Your task to perform on an android device: Open calendar and show me the second week of next month Image 0: 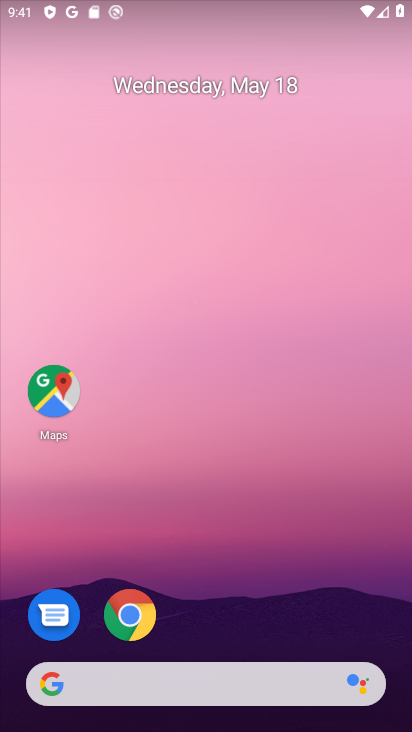
Step 0: drag from (279, 623) to (283, 181)
Your task to perform on an android device: Open calendar and show me the second week of next month Image 1: 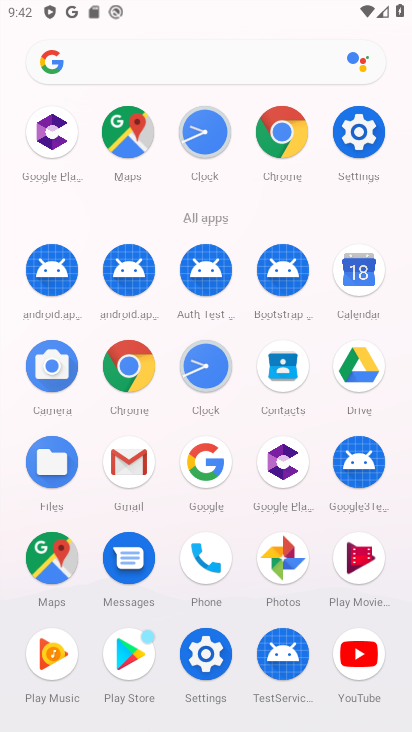
Step 1: click (367, 262)
Your task to perform on an android device: Open calendar and show me the second week of next month Image 2: 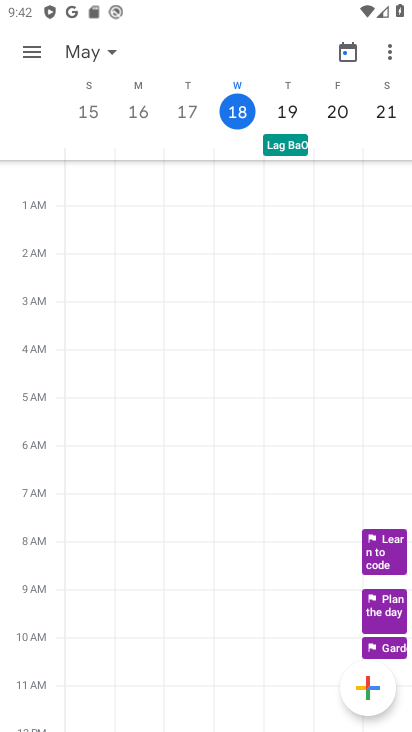
Step 2: click (40, 46)
Your task to perform on an android device: Open calendar and show me the second week of next month Image 3: 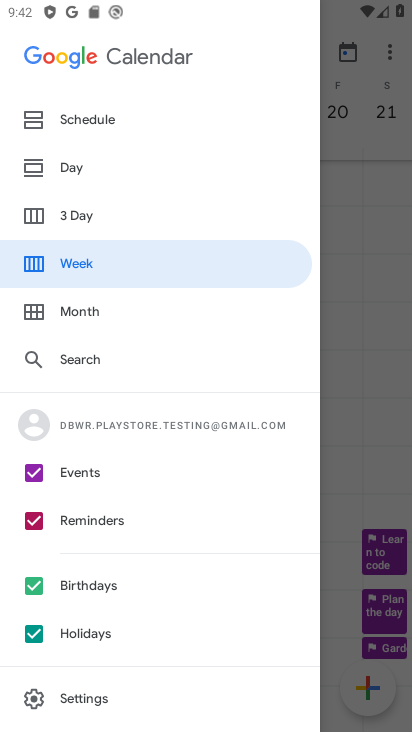
Step 3: click (116, 258)
Your task to perform on an android device: Open calendar and show me the second week of next month Image 4: 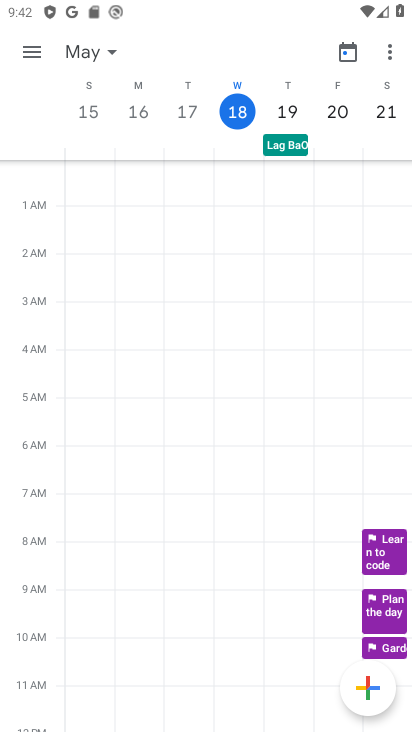
Step 4: click (108, 51)
Your task to perform on an android device: Open calendar and show me the second week of next month Image 5: 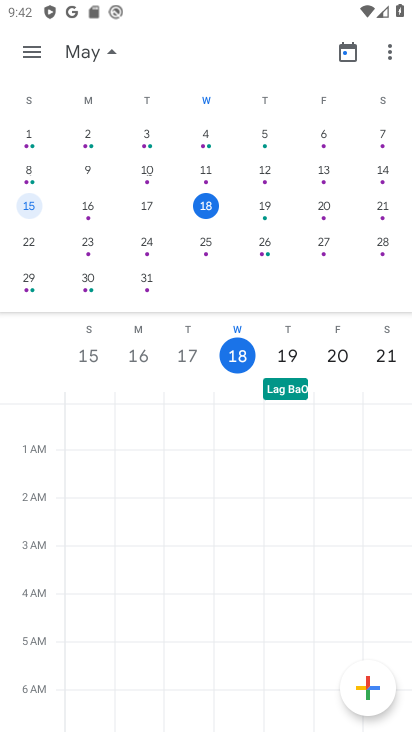
Step 5: drag from (356, 186) to (5, 137)
Your task to perform on an android device: Open calendar and show me the second week of next month Image 6: 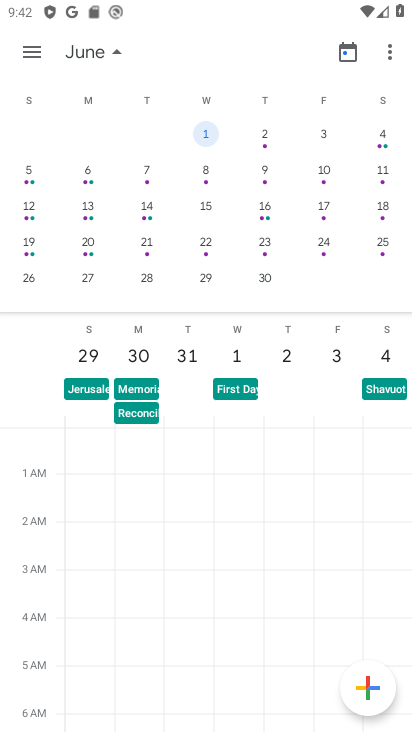
Step 6: click (77, 209)
Your task to perform on an android device: Open calendar and show me the second week of next month Image 7: 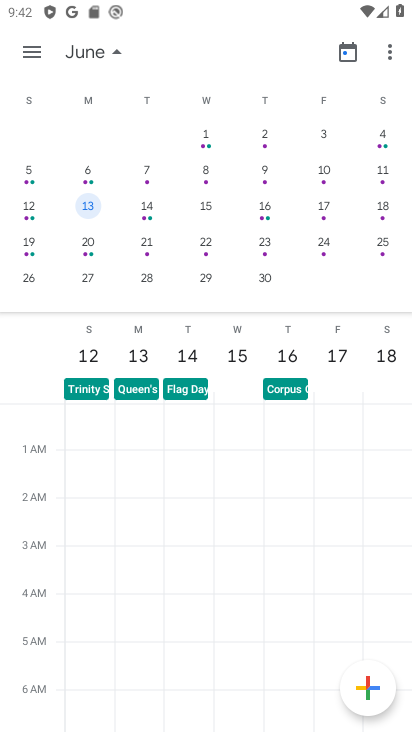
Step 7: task complete